Your task to perform on an android device: Is it going to rain tomorrow? Image 0: 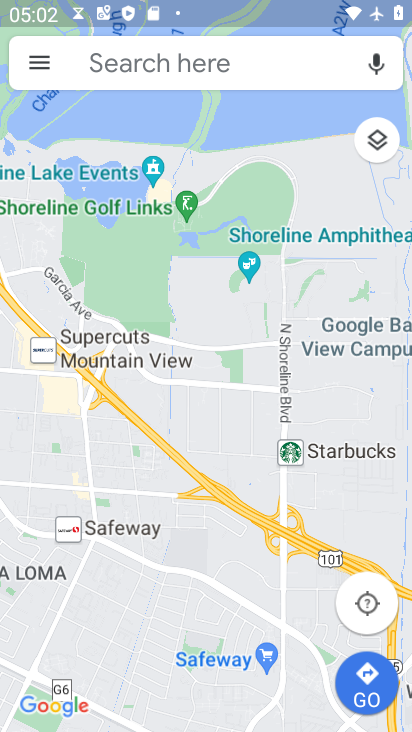
Step 0: press back button
Your task to perform on an android device: Is it going to rain tomorrow? Image 1: 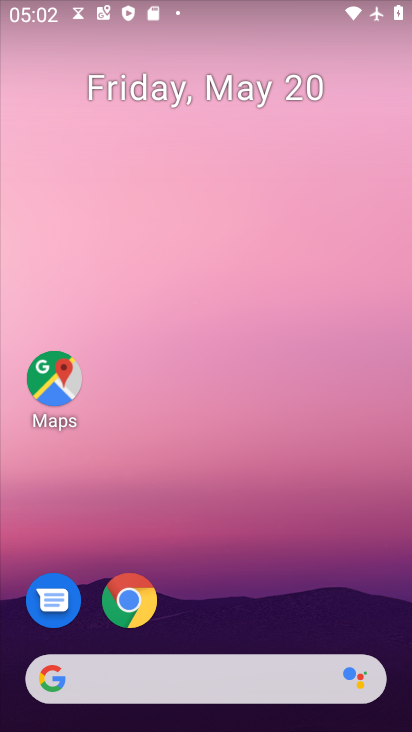
Step 1: drag from (231, 548) to (234, 48)
Your task to perform on an android device: Is it going to rain tomorrow? Image 2: 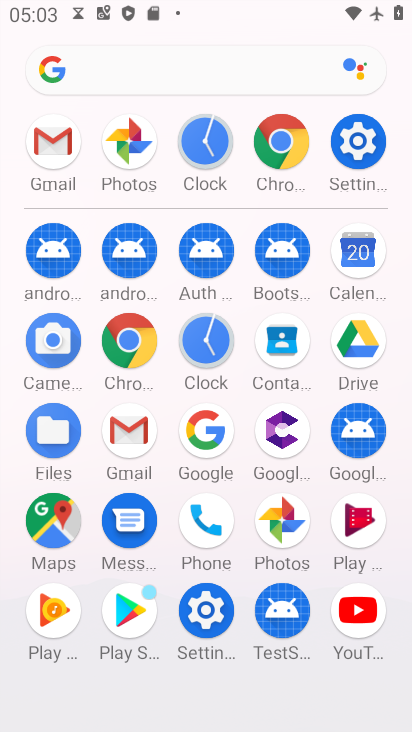
Step 2: click (126, 324)
Your task to perform on an android device: Is it going to rain tomorrow? Image 3: 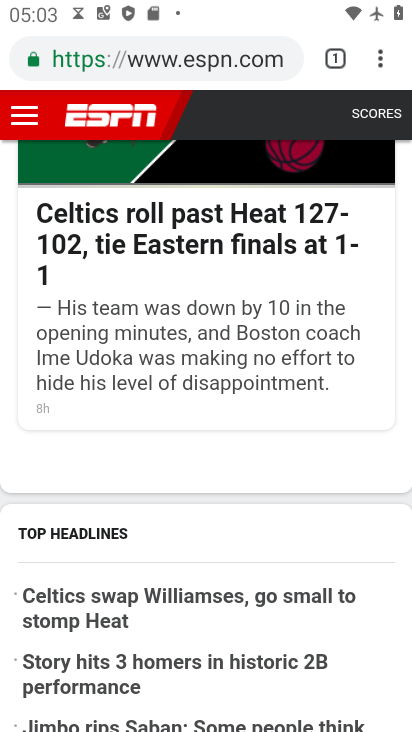
Step 3: click (149, 62)
Your task to perform on an android device: Is it going to rain tomorrow? Image 4: 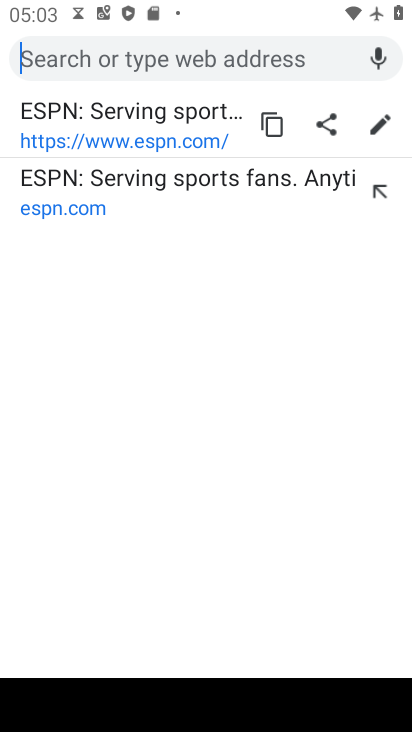
Step 4: click (117, 55)
Your task to perform on an android device: Is it going to rain tomorrow? Image 5: 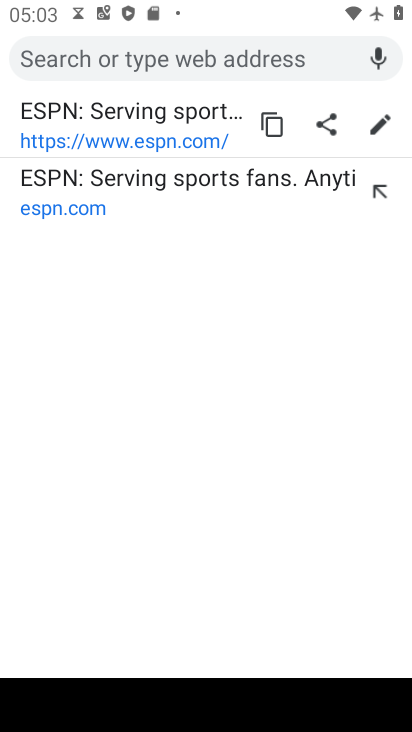
Step 5: type "Is it going to rain tomorrow?"
Your task to perform on an android device: Is it going to rain tomorrow? Image 6: 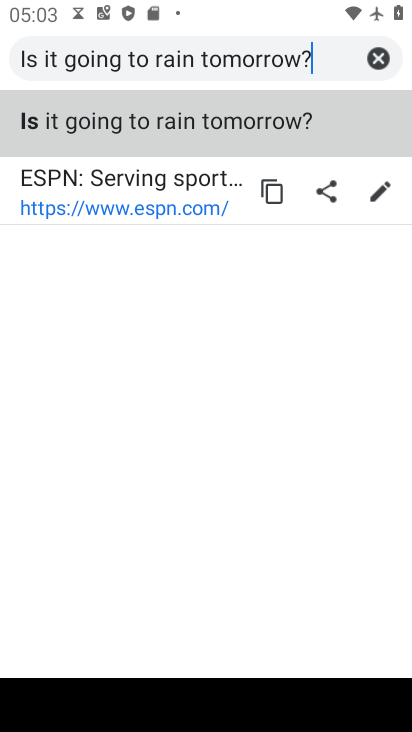
Step 6: type ""
Your task to perform on an android device: Is it going to rain tomorrow? Image 7: 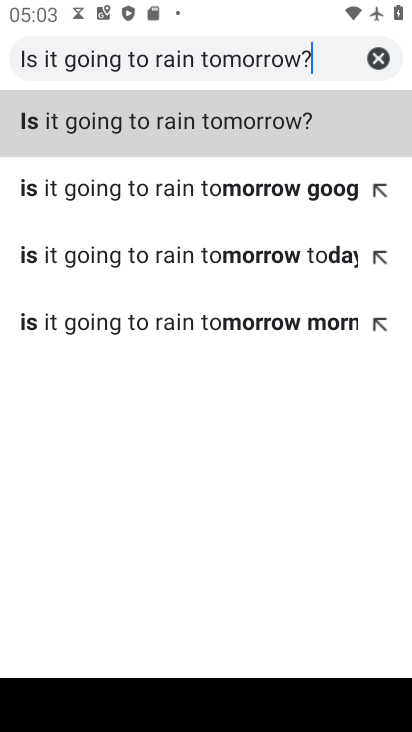
Step 7: click (195, 117)
Your task to perform on an android device: Is it going to rain tomorrow? Image 8: 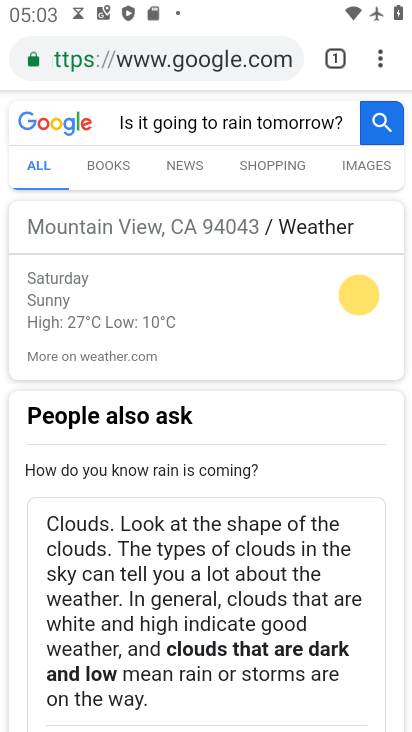
Step 8: click (112, 153)
Your task to perform on an android device: Is it going to rain tomorrow? Image 9: 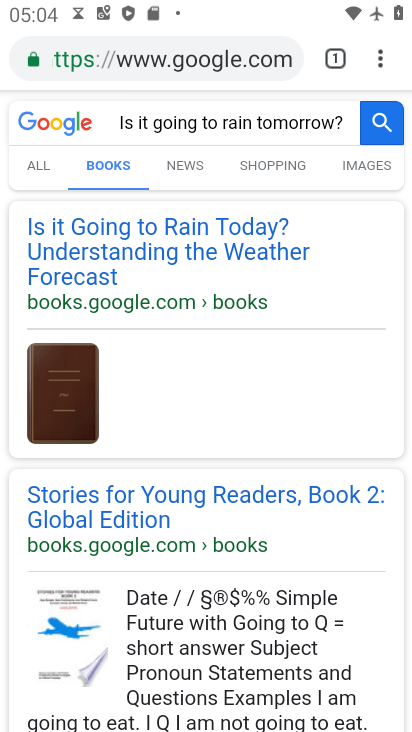
Step 9: click (159, 56)
Your task to perform on an android device: Is it going to rain tomorrow? Image 10: 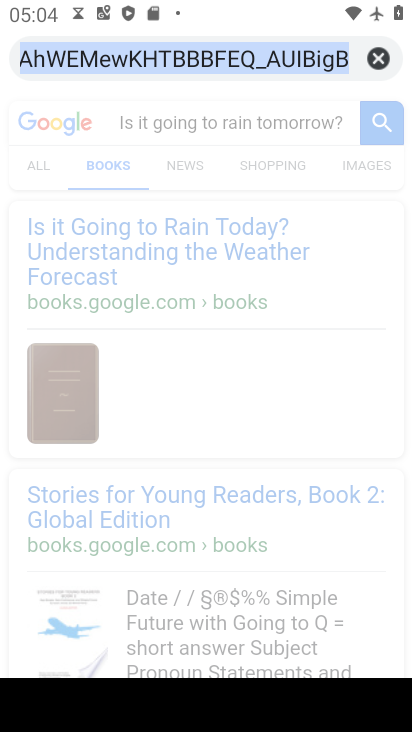
Step 10: click (376, 51)
Your task to perform on an android device: Is it going to rain tomorrow? Image 11: 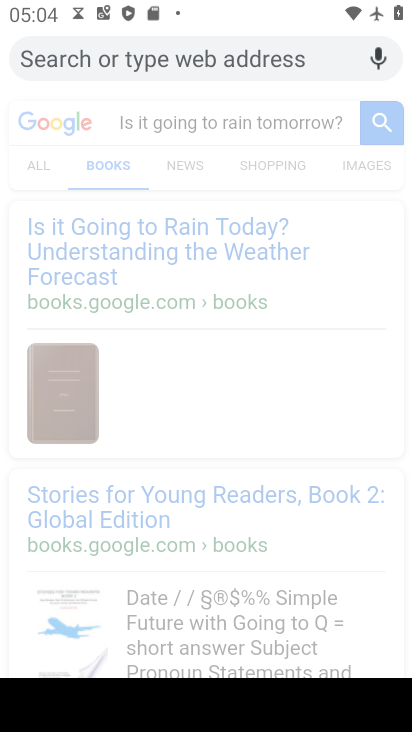
Step 11: type "Is it going to rain tomorrow?"
Your task to perform on an android device: Is it going to rain tomorrow? Image 12: 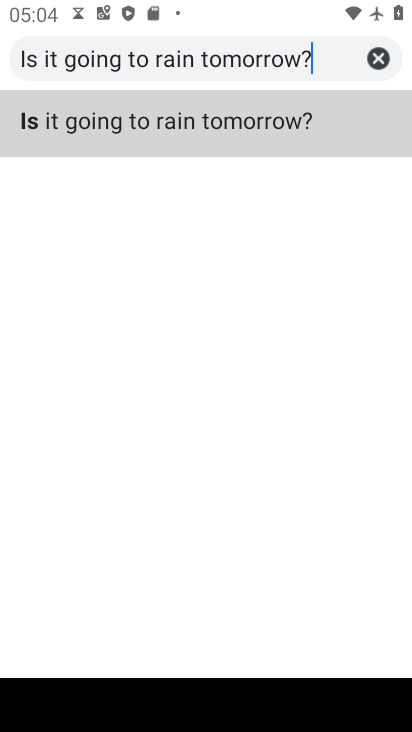
Step 12: type ""
Your task to perform on an android device: Is it going to rain tomorrow? Image 13: 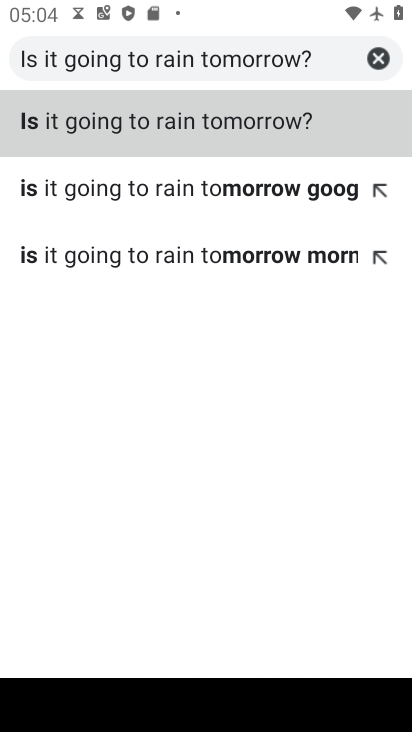
Step 13: click (137, 141)
Your task to perform on an android device: Is it going to rain tomorrow? Image 14: 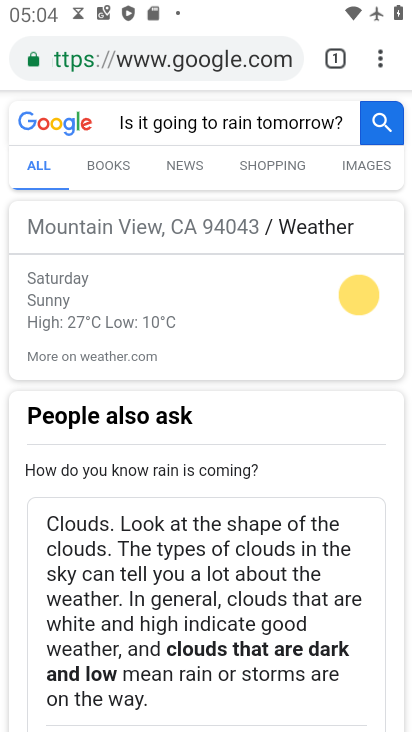
Step 14: task complete